Your task to perform on an android device: Open calendar and show me the first week of next month Image 0: 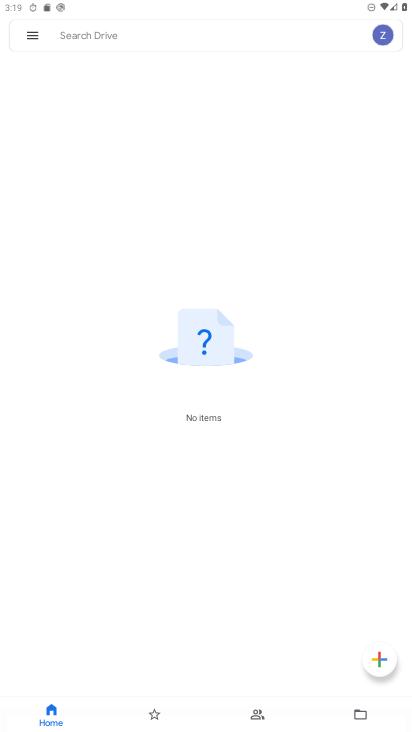
Step 0: press home button
Your task to perform on an android device: Open calendar and show me the first week of next month Image 1: 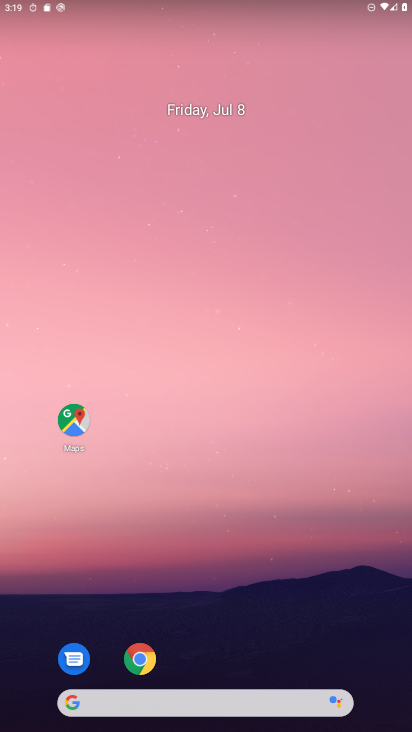
Step 1: drag from (244, 588) to (201, 353)
Your task to perform on an android device: Open calendar and show me the first week of next month Image 2: 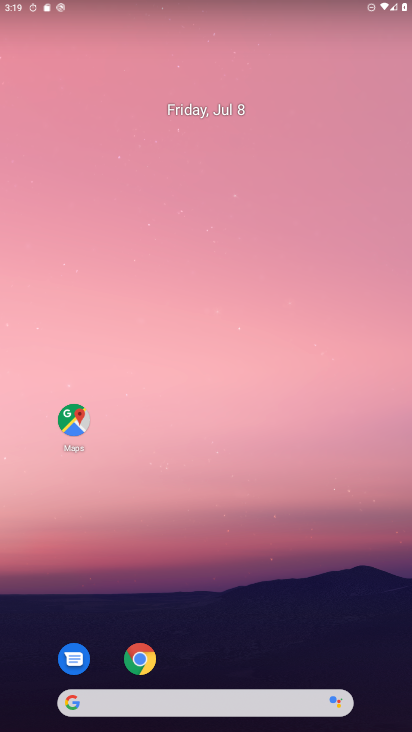
Step 2: drag from (251, 599) to (196, 10)
Your task to perform on an android device: Open calendar and show me the first week of next month Image 3: 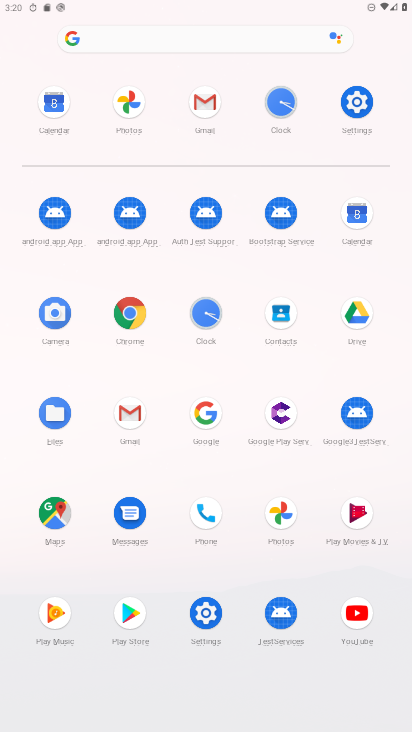
Step 3: click (358, 218)
Your task to perform on an android device: Open calendar and show me the first week of next month Image 4: 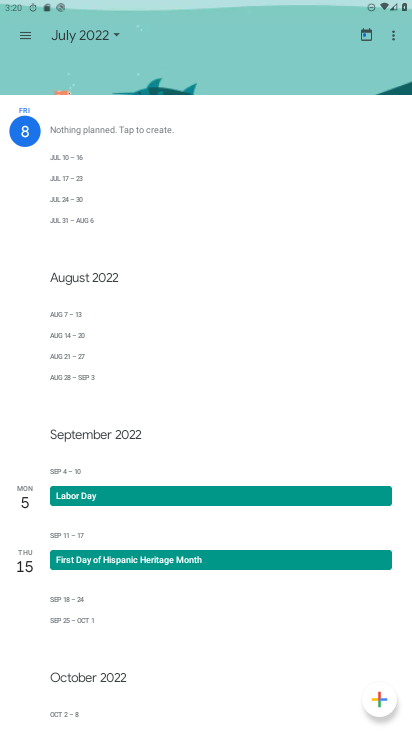
Step 4: click (71, 28)
Your task to perform on an android device: Open calendar and show me the first week of next month Image 5: 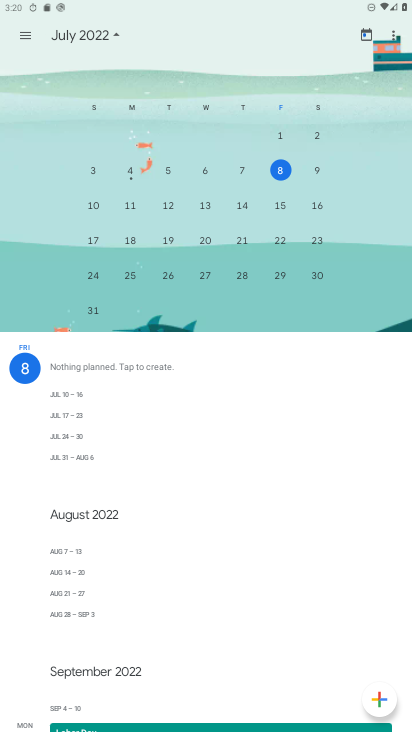
Step 5: drag from (323, 168) to (5, 170)
Your task to perform on an android device: Open calendar and show me the first week of next month Image 6: 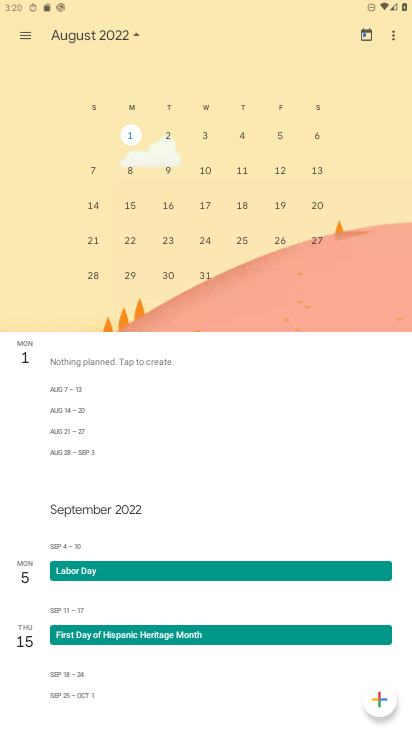
Step 6: click (131, 126)
Your task to perform on an android device: Open calendar and show me the first week of next month Image 7: 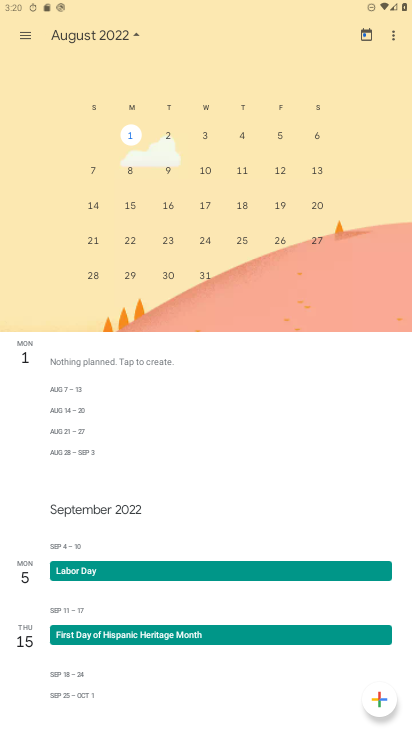
Step 7: task complete